Your task to perform on an android device: Empty the shopping cart on newegg. Search for macbook pro 15 inch on newegg, select the first entry, and add it to the cart. Image 0: 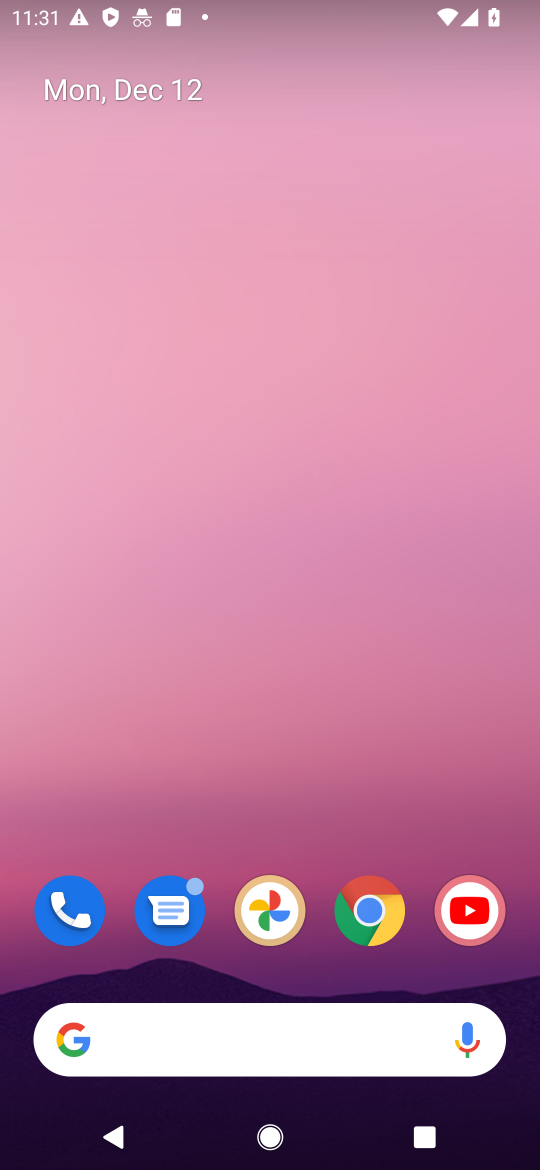
Step 0: click (375, 904)
Your task to perform on an android device: Empty the shopping cart on newegg. Search for macbook pro 15 inch on newegg, select the first entry, and add it to the cart. Image 1: 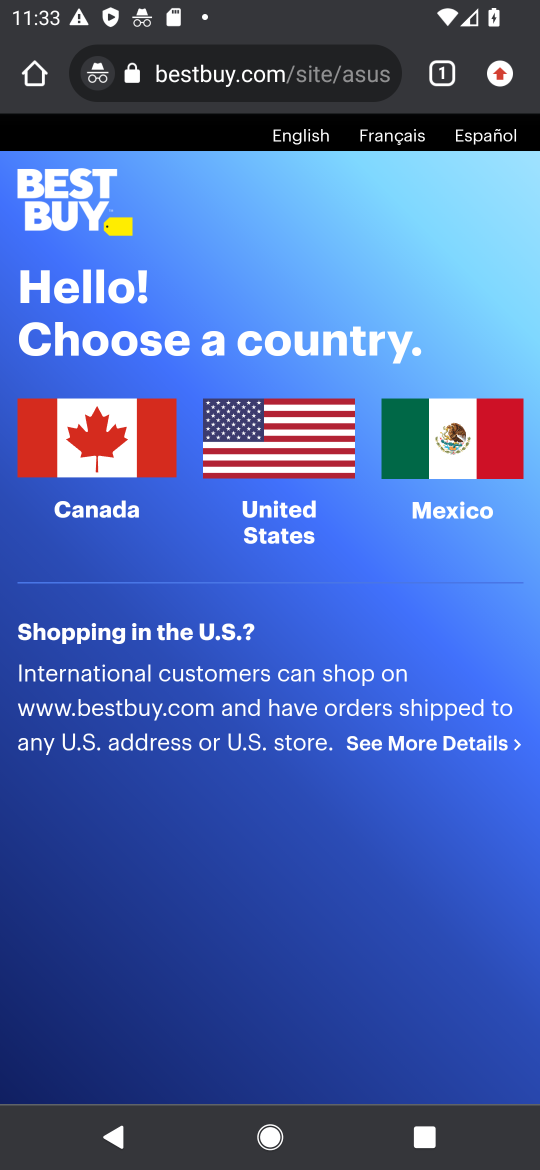
Step 1: click (268, 420)
Your task to perform on an android device: Empty the shopping cart on newegg. Search for macbook pro 15 inch on newegg, select the first entry, and add it to the cart. Image 2: 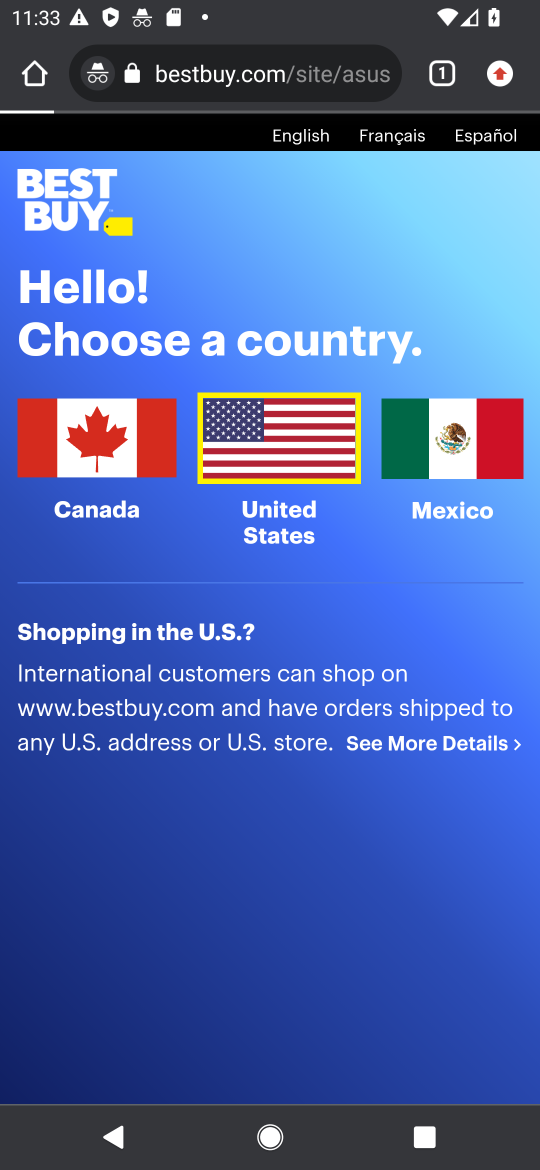
Step 2: click (210, 66)
Your task to perform on an android device: Empty the shopping cart on newegg. Search for macbook pro 15 inch on newegg, select the first entry, and add it to the cart. Image 3: 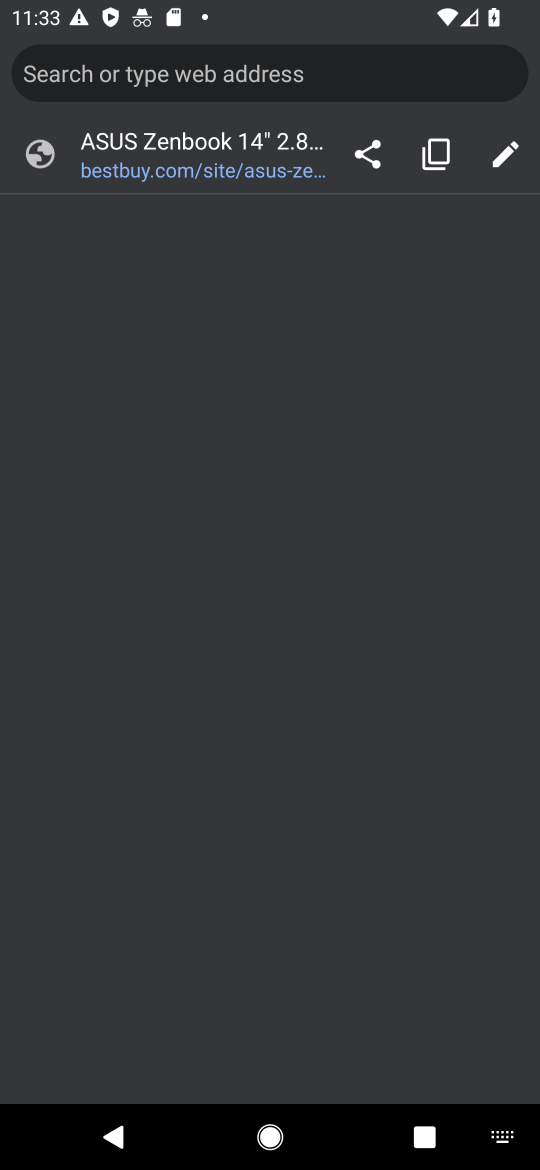
Step 3: type "newegg"
Your task to perform on an android device: Empty the shopping cart on newegg. Search for macbook pro 15 inch on newegg, select the first entry, and add it to the cart. Image 4: 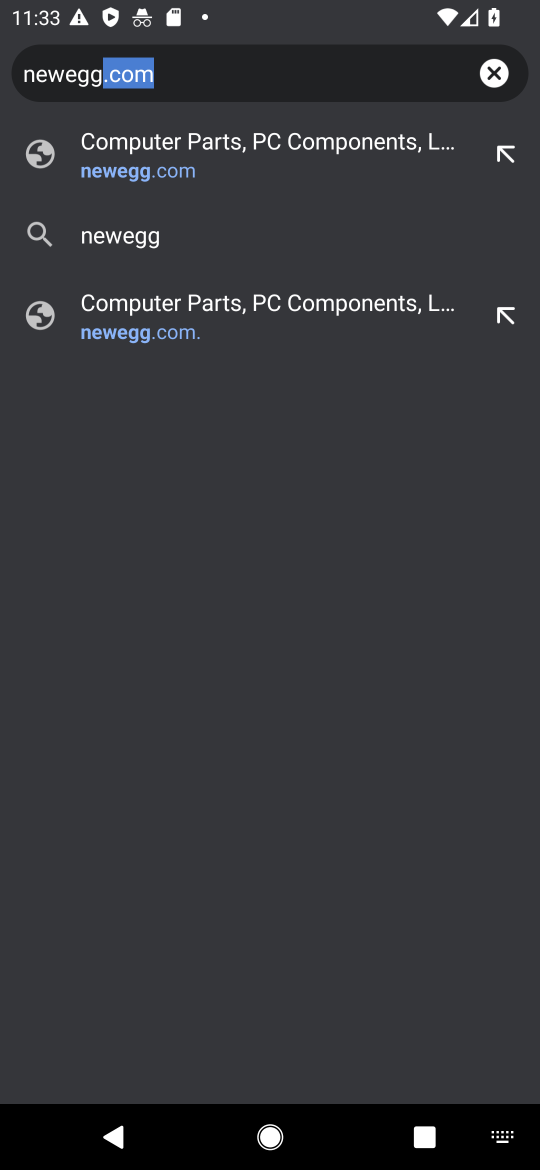
Step 4: click (184, 172)
Your task to perform on an android device: Empty the shopping cart on newegg. Search for macbook pro 15 inch on newegg, select the first entry, and add it to the cart. Image 5: 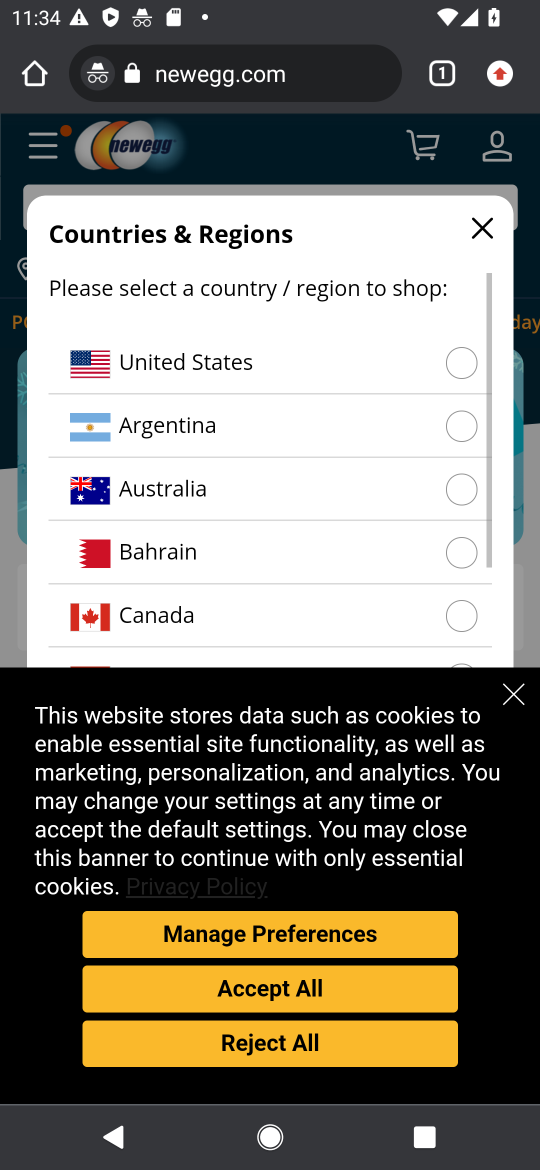
Step 5: click (513, 697)
Your task to perform on an android device: Empty the shopping cart on newegg. Search for macbook pro 15 inch on newegg, select the first entry, and add it to the cart. Image 6: 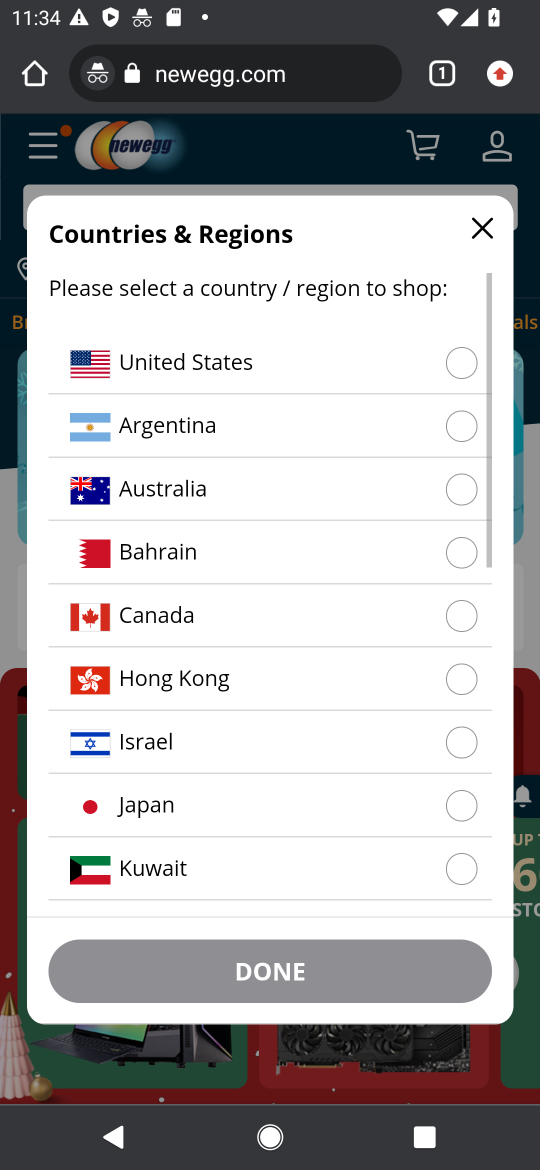
Step 6: click (479, 228)
Your task to perform on an android device: Empty the shopping cart on newegg. Search for macbook pro 15 inch on newegg, select the first entry, and add it to the cart. Image 7: 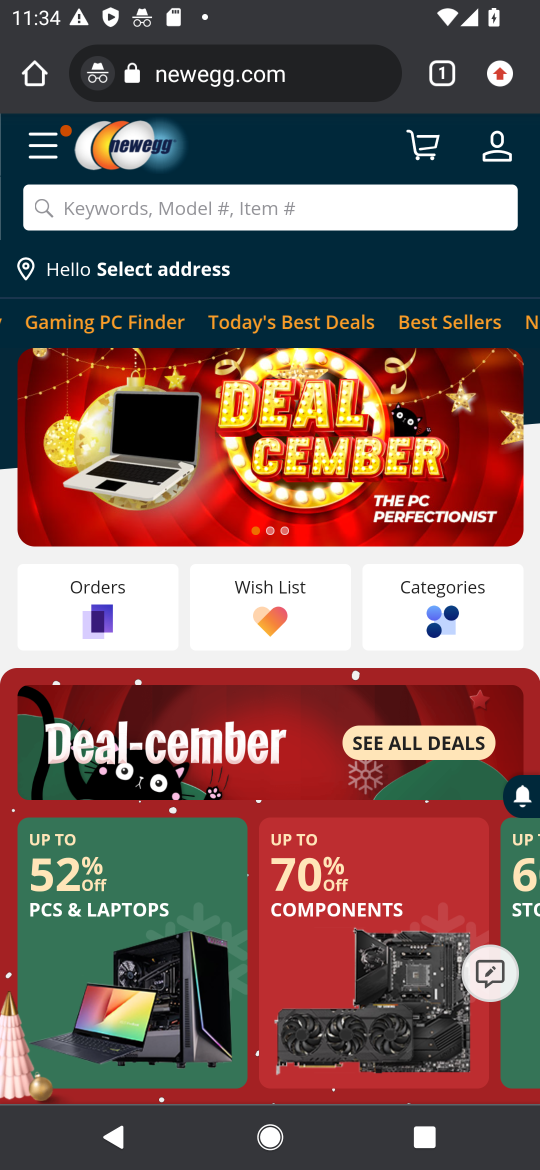
Step 7: click (357, 198)
Your task to perform on an android device: Empty the shopping cart on newegg. Search for macbook pro 15 inch on newegg, select the first entry, and add it to the cart. Image 8: 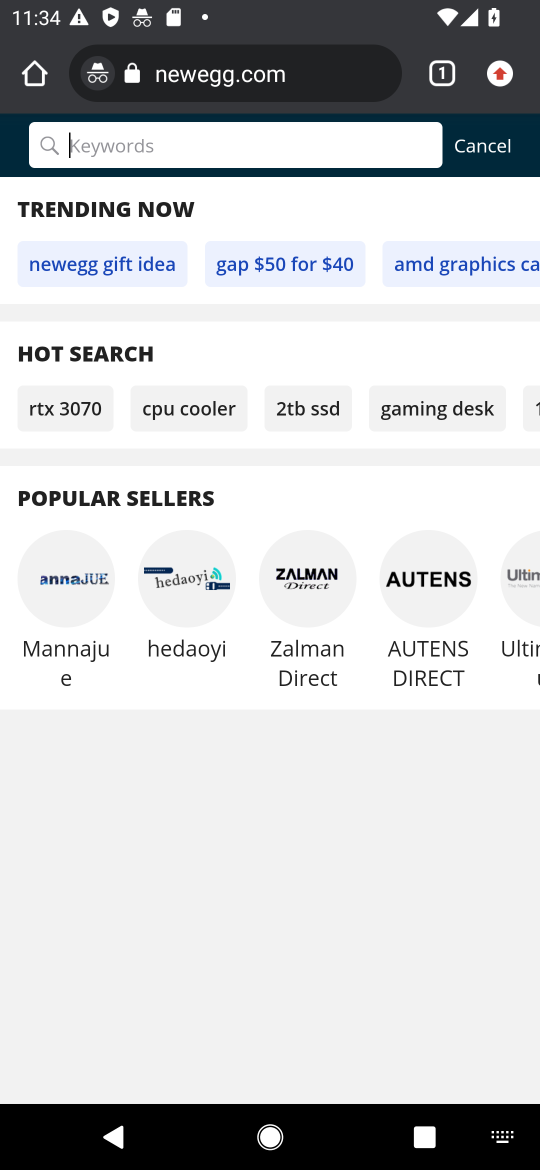
Step 8: type "macbook pro 15"
Your task to perform on an android device: Empty the shopping cart on newegg. Search for macbook pro 15 inch on newegg, select the first entry, and add it to the cart. Image 9: 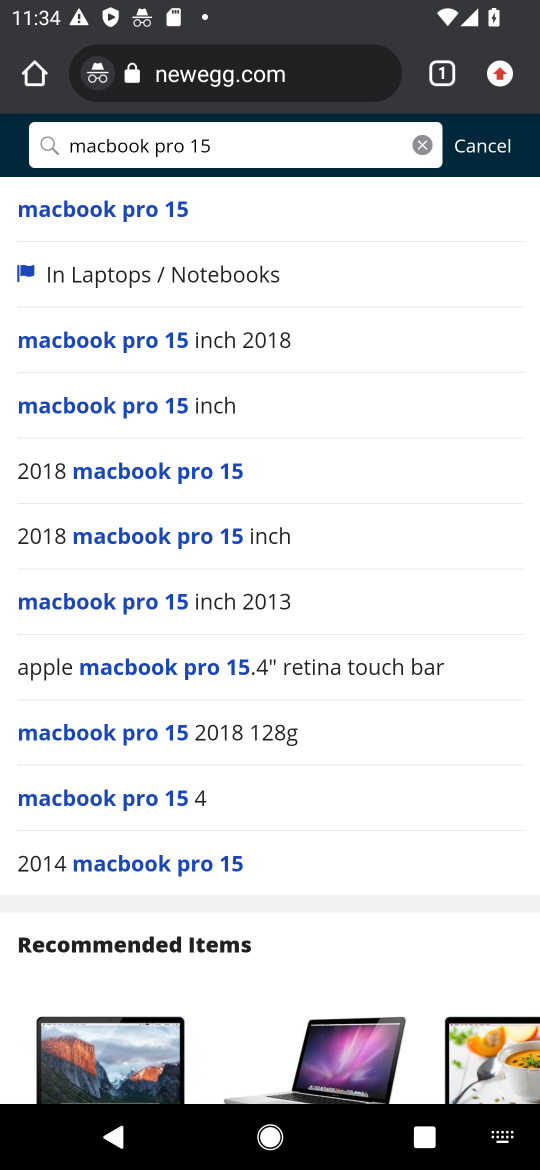
Step 9: click (89, 202)
Your task to perform on an android device: Empty the shopping cart on newegg. Search for macbook pro 15 inch on newegg, select the first entry, and add it to the cart. Image 10: 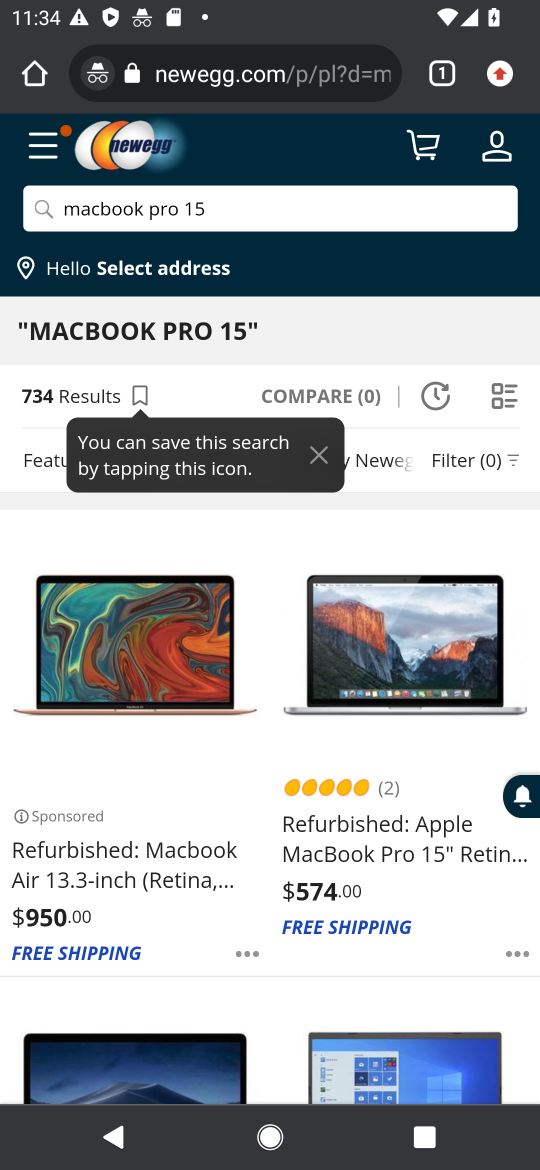
Step 10: click (142, 687)
Your task to perform on an android device: Empty the shopping cart on newegg. Search for macbook pro 15 inch on newegg, select the first entry, and add it to the cart. Image 11: 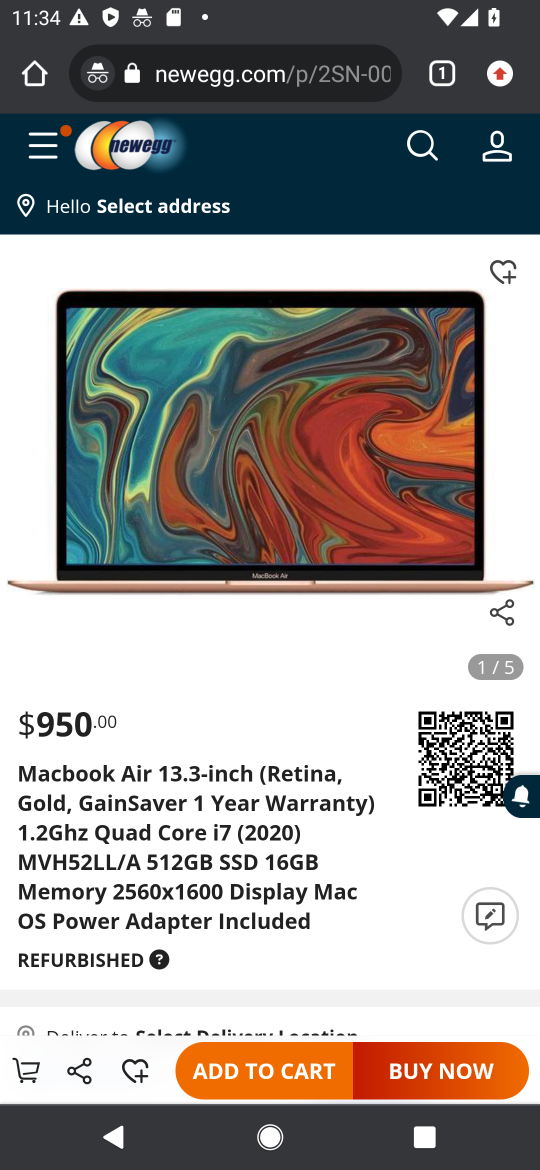
Step 11: click (255, 1072)
Your task to perform on an android device: Empty the shopping cart on newegg. Search for macbook pro 15 inch on newegg, select the first entry, and add it to the cart. Image 12: 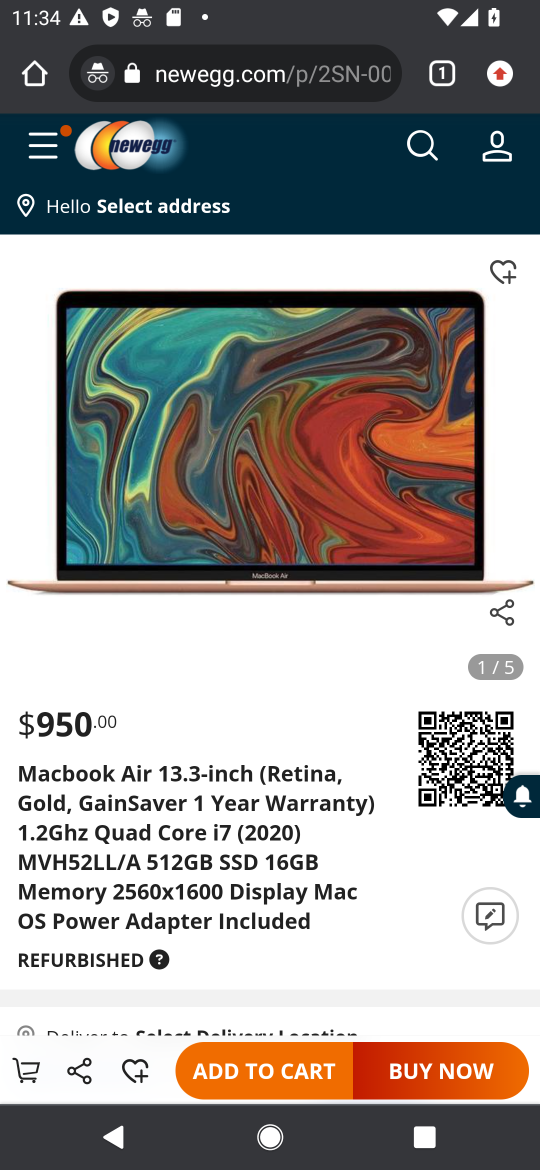
Step 12: task complete